Your task to perform on an android device: Open calendar and show me the second week of next month Image 0: 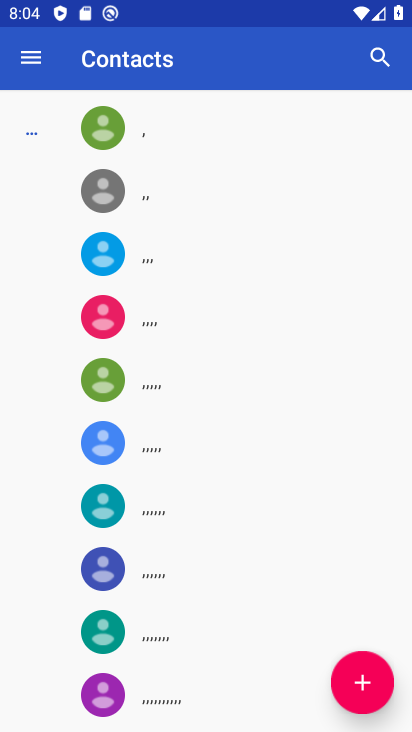
Step 0: press home button
Your task to perform on an android device: Open calendar and show me the second week of next month Image 1: 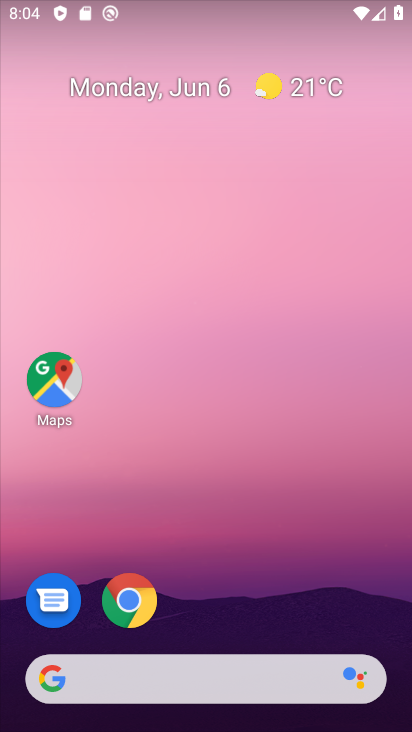
Step 1: drag from (224, 662) to (361, 85)
Your task to perform on an android device: Open calendar and show me the second week of next month Image 2: 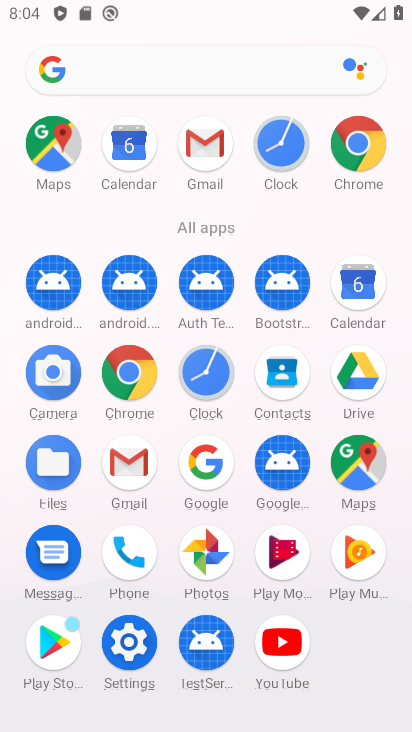
Step 2: click (373, 290)
Your task to perform on an android device: Open calendar and show me the second week of next month Image 3: 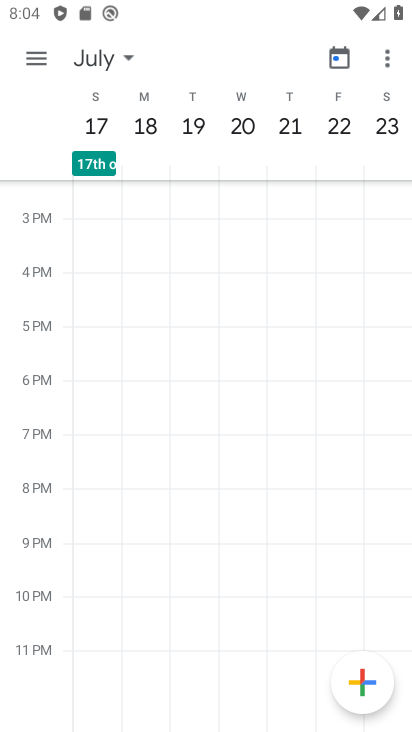
Step 3: task complete